Your task to perform on an android device: Open location settings Image 0: 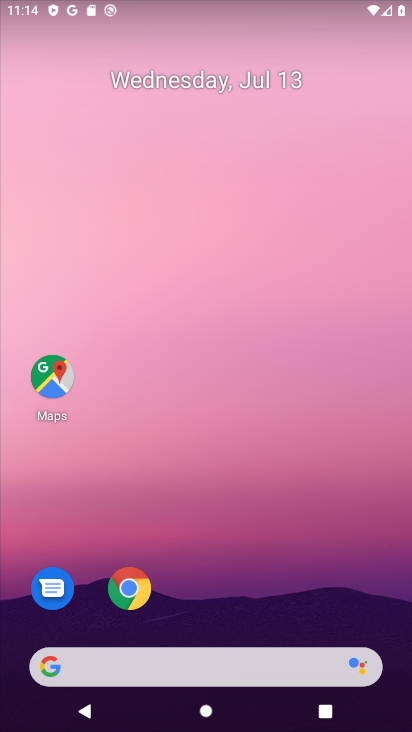
Step 0: drag from (224, 583) to (225, 84)
Your task to perform on an android device: Open location settings Image 1: 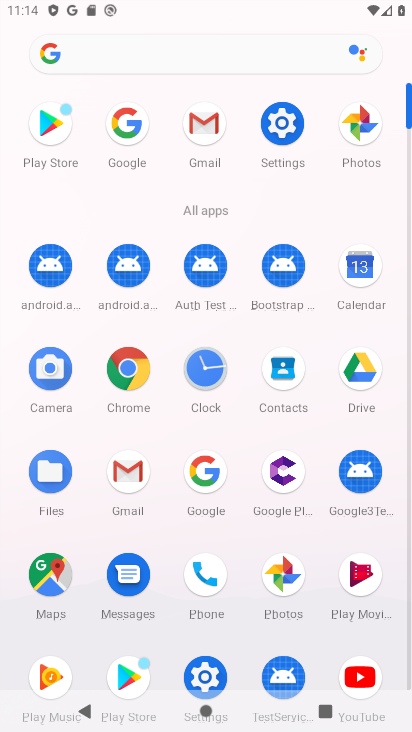
Step 1: click (205, 673)
Your task to perform on an android device: Open location settings Image 2: 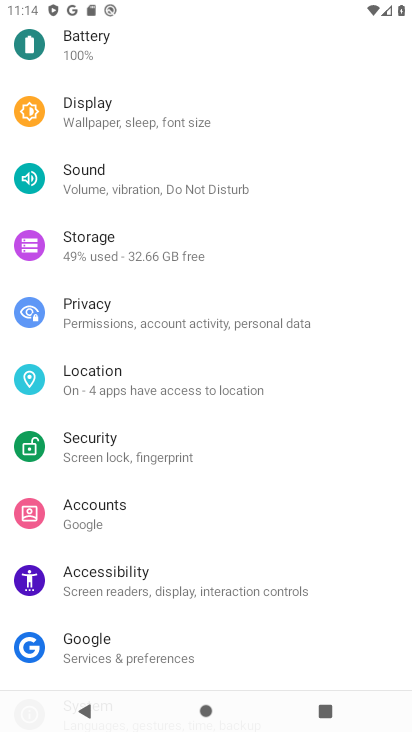
Step 2: click (109, 376)
Your task to perform on an android device: Open location settings Image 3: 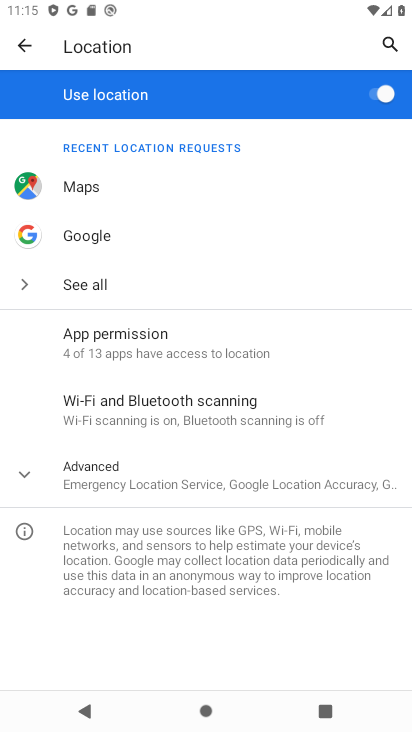
Step 3: task complete